Your task to perform on an android device: turn off location Image 0: 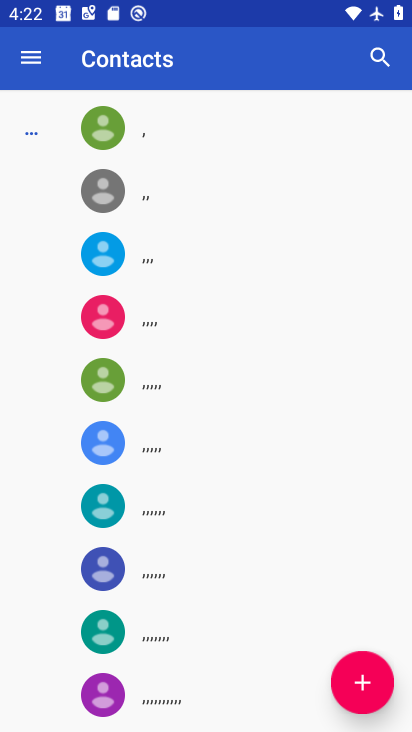
Step 0: press home button
Your task to perform on an android device: turn off location Image 1: 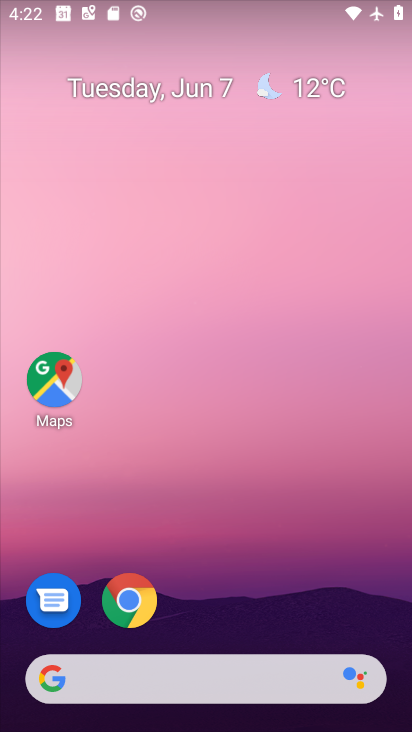
Step 1: drag from (308, 595) to (277, 370)
Your task to perform on an android device: turn off location Image 2: 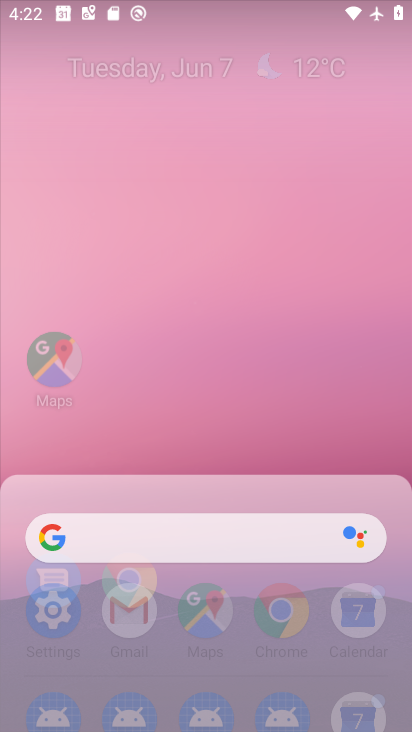
Step 2: click (244, 179)
Your task to perform on an android device: turn off location Image 3: 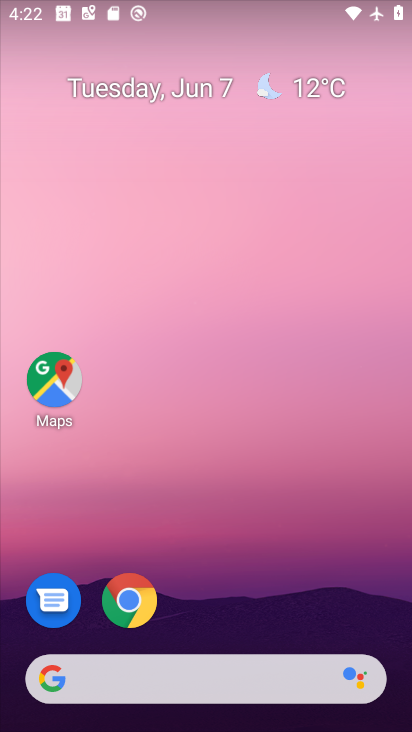
Step 3: drag from (370, 539) to (251, 213)
Your task to perform on an android device: turn off location Image 4: 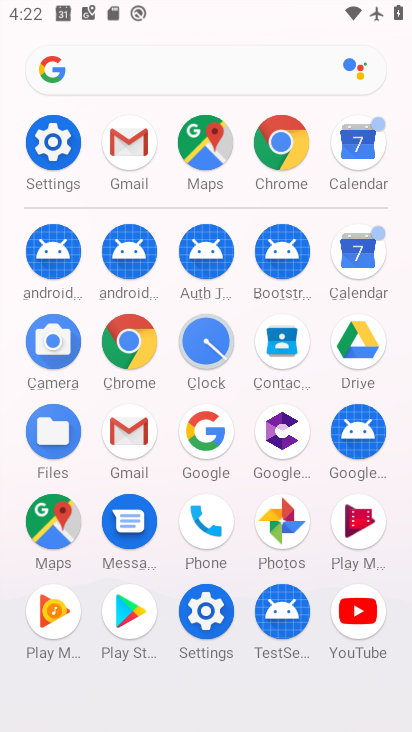
Step 4: click (50, 145)
Your task to perform on an android device: turn off location Image 5: 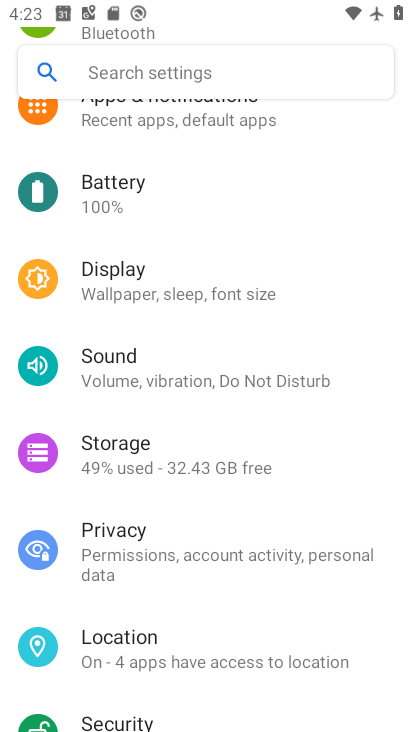
Step 5: drag from (276, 548) to (243, 220)
Your task to perform on an android device: turn off location Image 6: 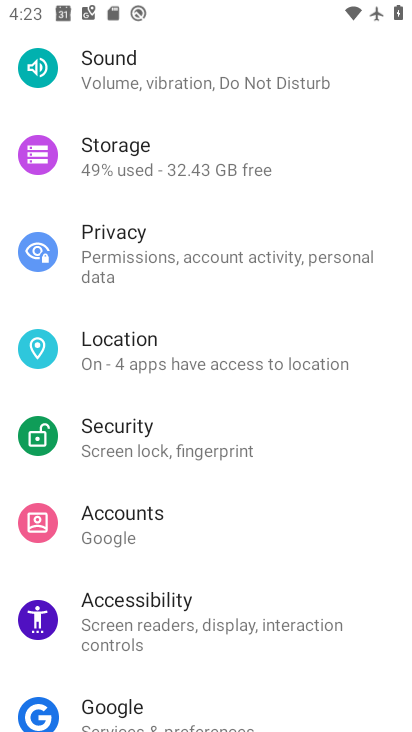
Step 6: click (201, 378)
Your task to perform on an android device: turn off location Image 7: 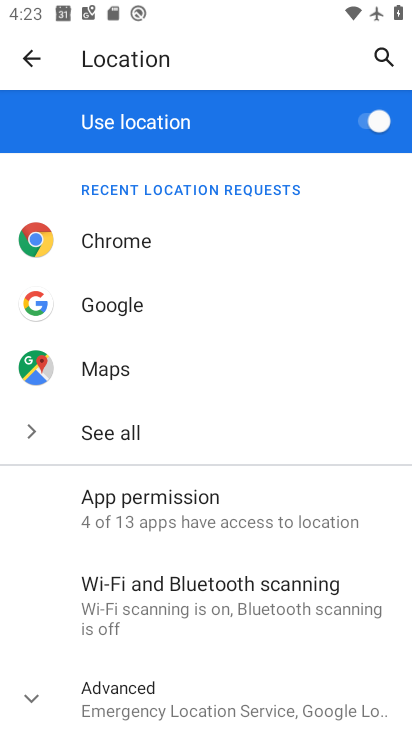
Step 7: click (360, 127)
Your task to perform on an android device: turn off location Image 8: 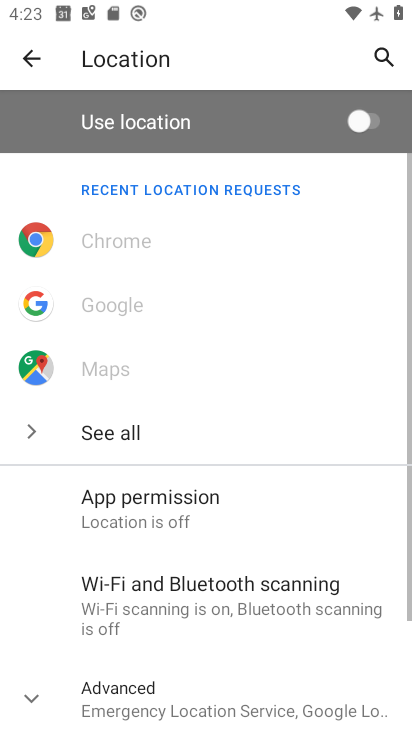
Step 8: task complete